Your task to perform on an android device: toggle airplane mode Image 0: 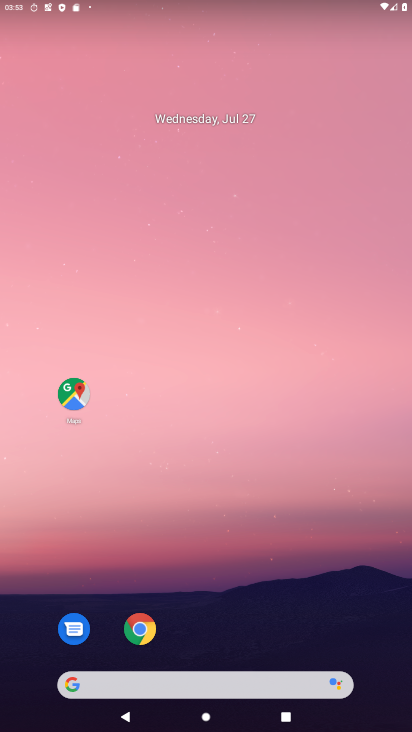
Step 0: drag from (313, 551) to (294, 21)
Your task to perform on an android device: toggle airplane mode Image 1: 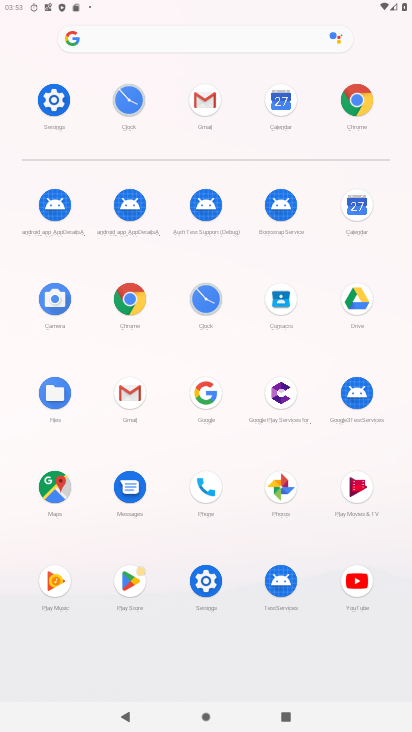
Step 1: click (48, 95)
Your task to perform on an android device: toggle airplane mode Image 2: 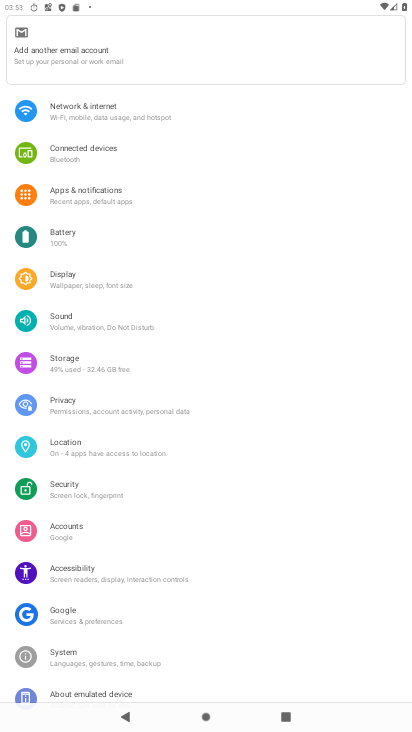
Step 2: click (104, 110)
Your task to perform on an android device: toggle airplane mode Image 3: 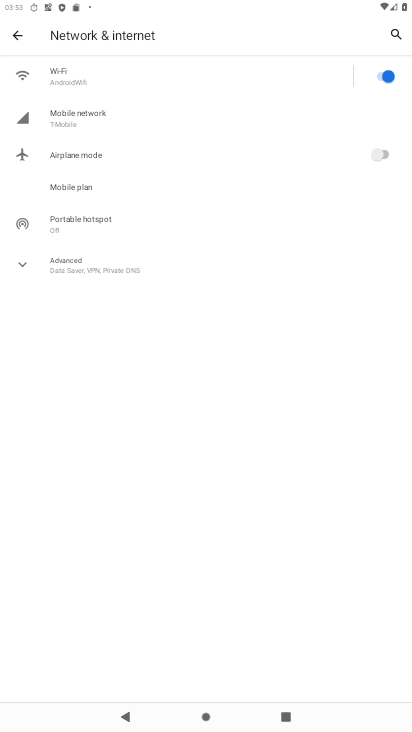
Step 3: click (383, 166)
Your task to perform on an android device: toggle airplane mode Image 4: 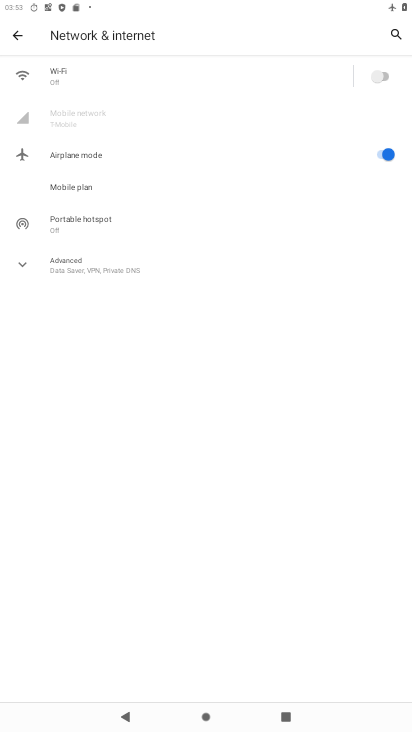
Step 4: task complete